Your task to perform on an android device: turn on the 24-hour format for clock Image 0: 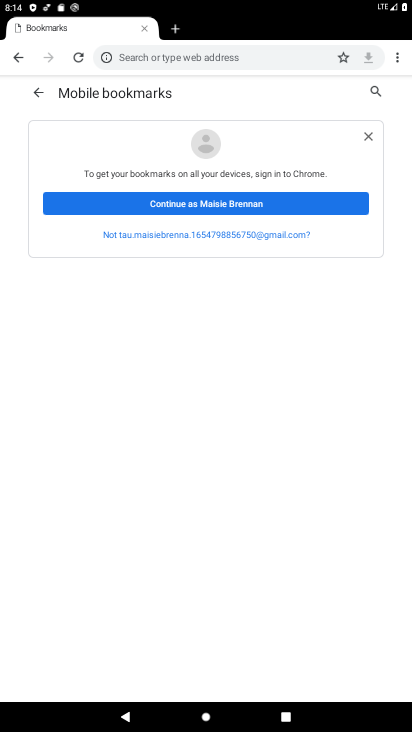
Step 0: press home button
Your task to perform on an android device: turn on the 24-hour format for clock Image 1: 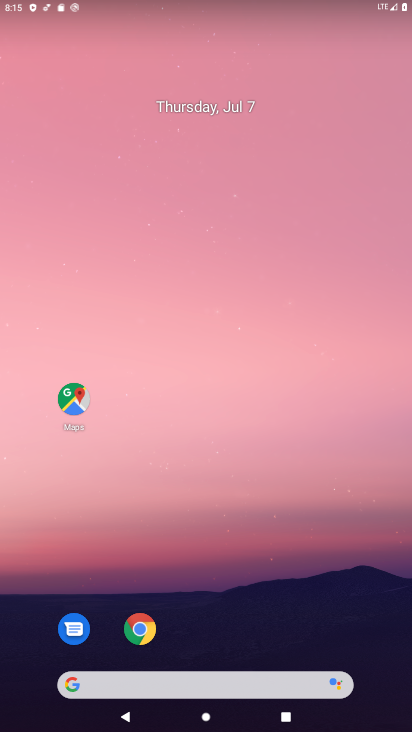
Step 1: drag from (169, 646) to (189, 116)
Your task to perform on an android device: turn on the 24-hour format for clock Image 2: 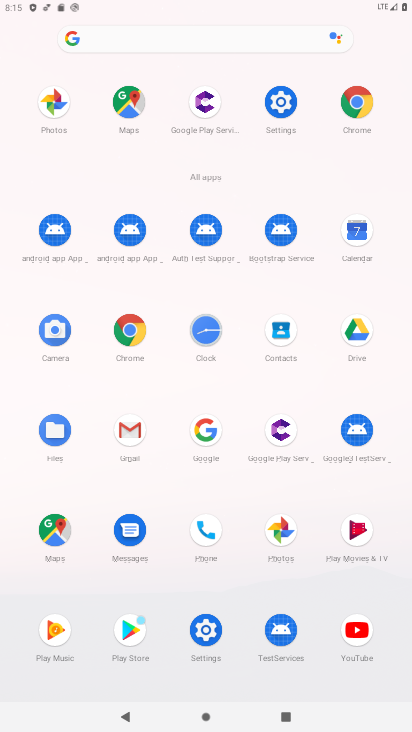
Step 2: click (208, 325)
Your task to perform on an android device: turn on the 24-hour format for clock Image 3: 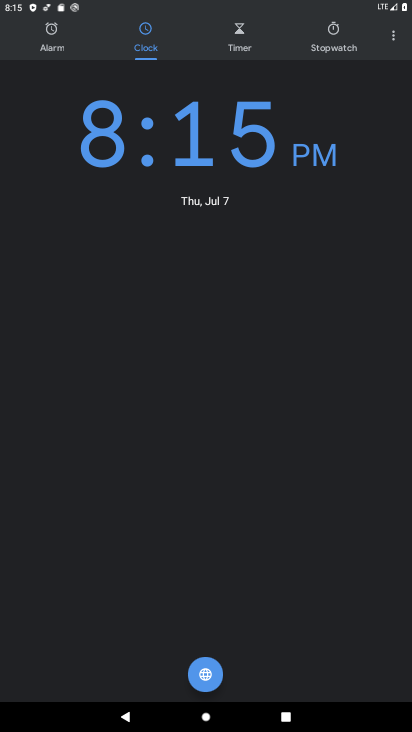
Step 3: click (389, 38)
Your task to perform on an android device: turn on the 24-hour format for clock Image 4: 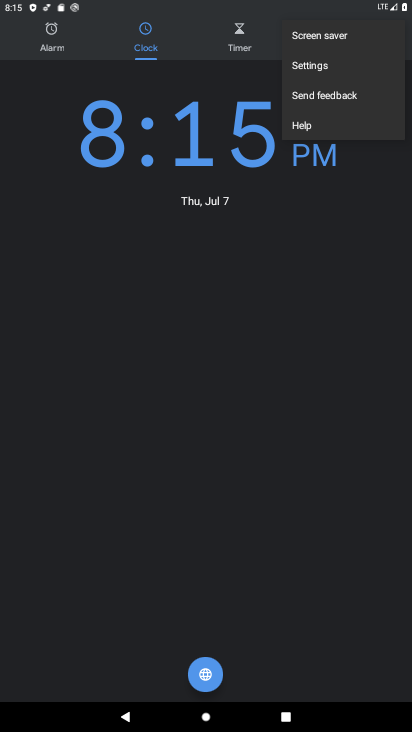
Step 4: click (336, 71)
Your task to perform on an android device: turn on the 24-hour format for clock Image 5: 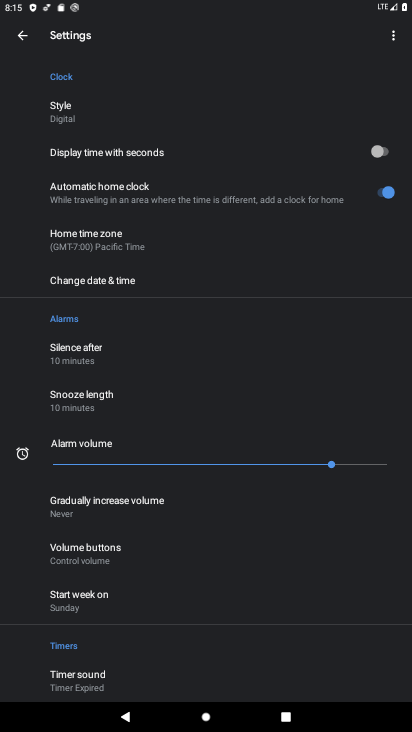
Step 5: click (139, 284)
Your task to perform on an android device: turn on the 24-hour format for clock Image 6: 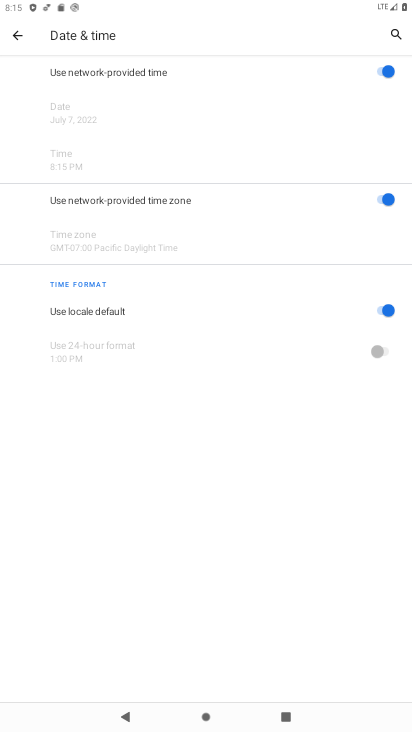
Step 6: click (378, 307)
Your task to perform on an android device: turn on the 24-hour format for clock Image 7: 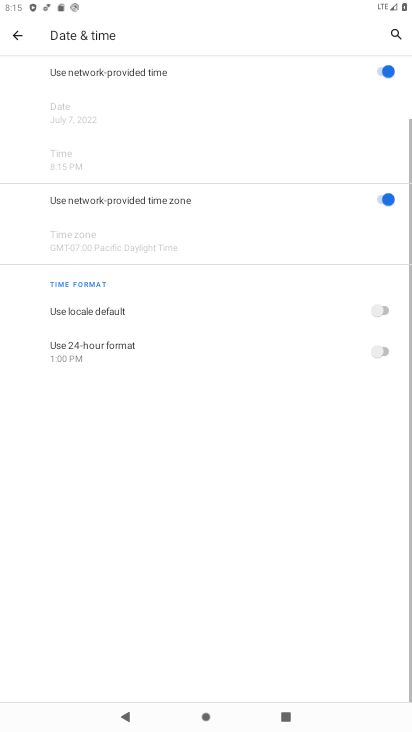
Step 7: click (387, 352)
Your task to perform on an android device: turn on the 24-hour format for clock Image 8: 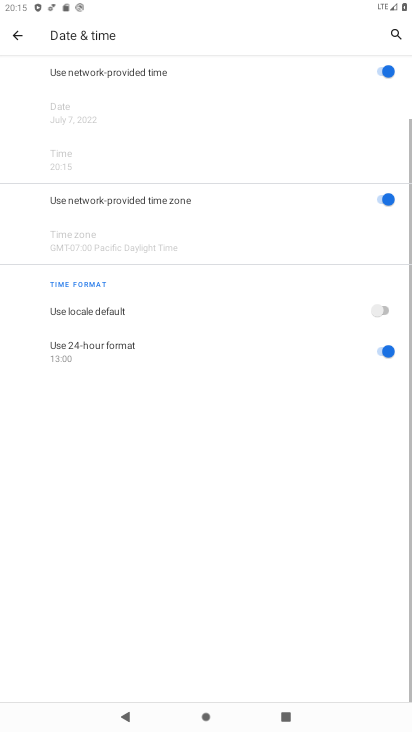
Step 8: task complete